Your task to perform on an android device: manage bookmarks in the chrome app Image 0: 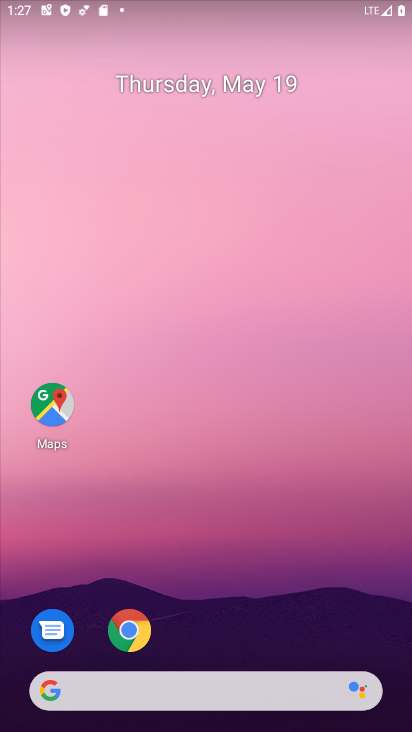
Step 0: drag from (179, 662) to (149, 74)
Your task to perform on an android device: manage bookmarks in the chrome app Image 1: 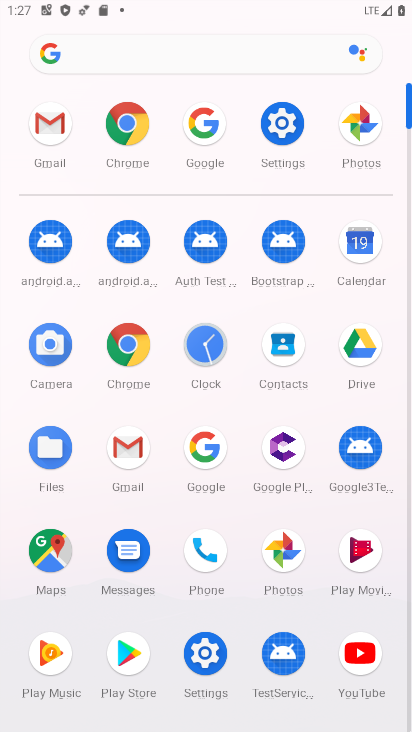
Step 1: click (147, 342)
Your task to perform on an android device: manage bookmarks in the chrome app Image 2: 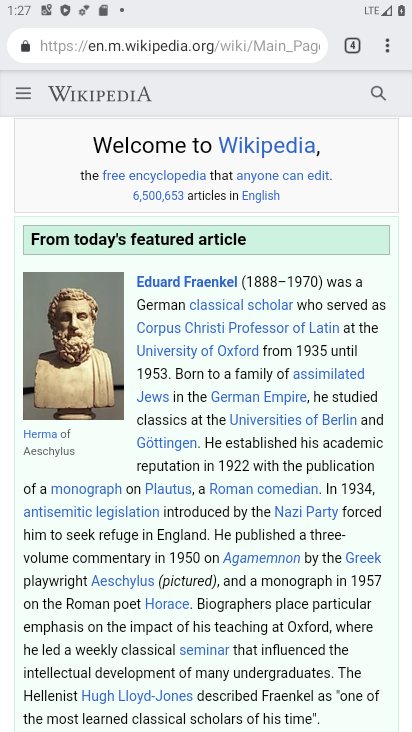
Step 2: click (390, 49)
Your task to perform on an android device: manage bookmarks in the chrome app Image 3: 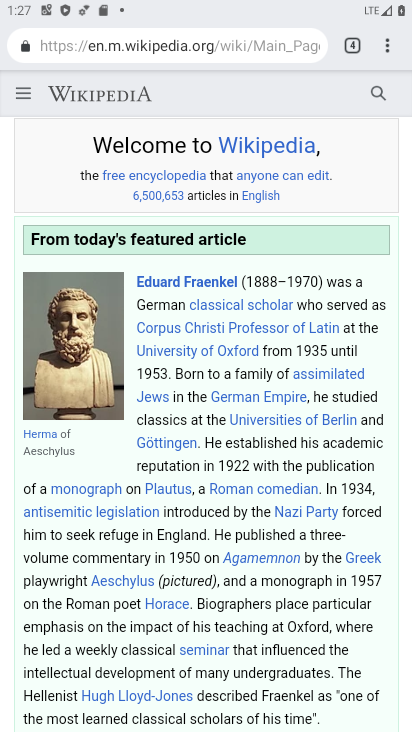
Step 3: task complete